Your task to perform on an android device: add a label to a message in the gmail app Image 0: 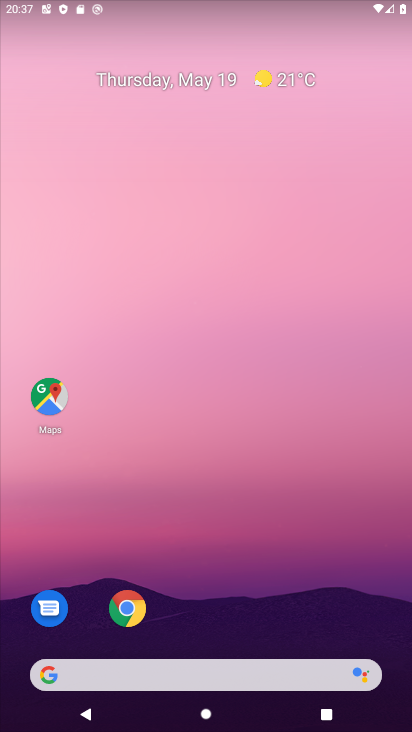
Step 0: drag from (273, 557) to (133, 12)
Your task to perform on an android device: add a label to a message in the gmail app Image 1: 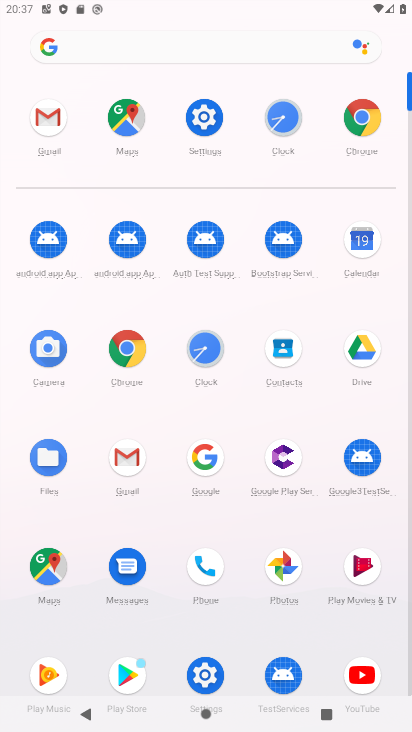
Step 1: click (45, 125)
Your task to perform on an android device: add a label to a message in the gmail app Image 2: 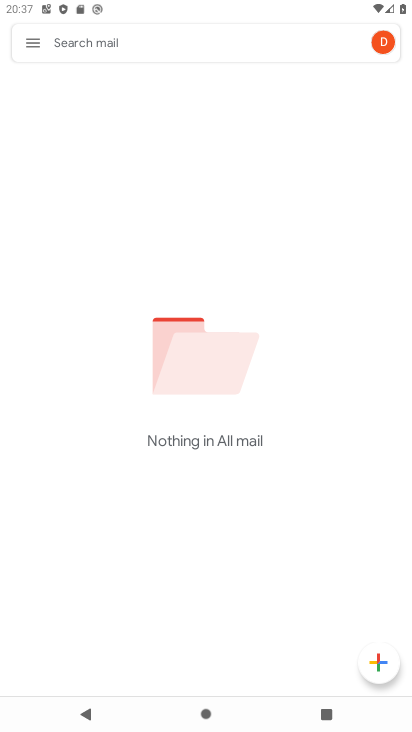
Step 2: task complete